Your task to perform on an android device: see sites visited before in the chrome app Image 0: 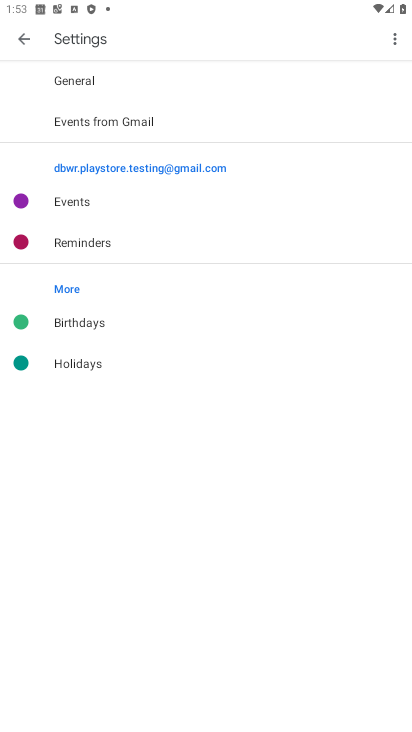
Step 0: press home button
Your task to perform on an android device: see sites visited before in the chrome app Image 1: 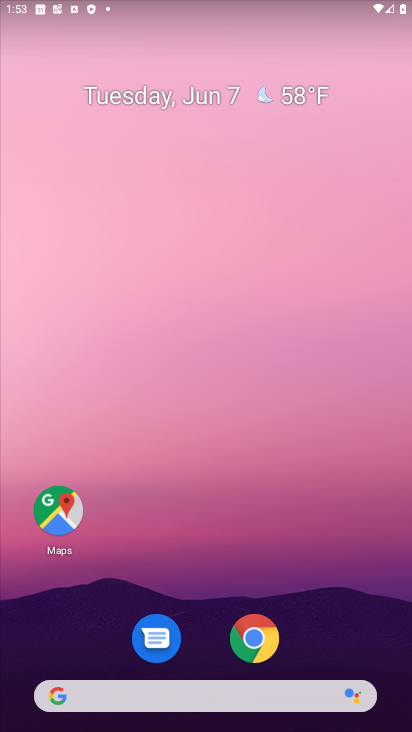
Step 1: drag from (212, 627) to (293, 292)
Your task to perform on an android device: see sites visited before in the chrome app Image 2: 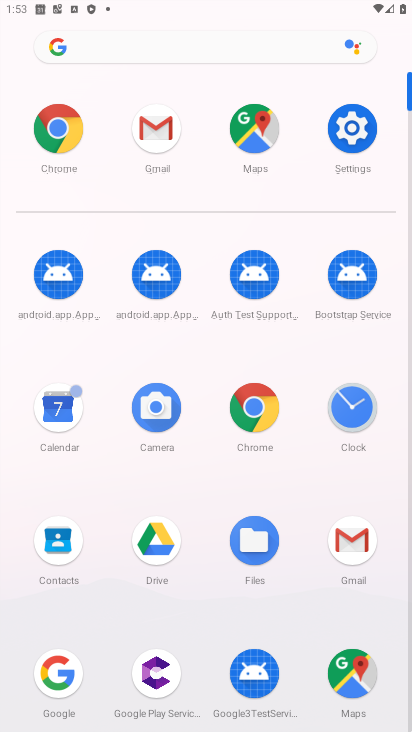
Step 2: click (61, 126)
Your task to perform on an android device: see sites visited before in the chrome app Image 3: 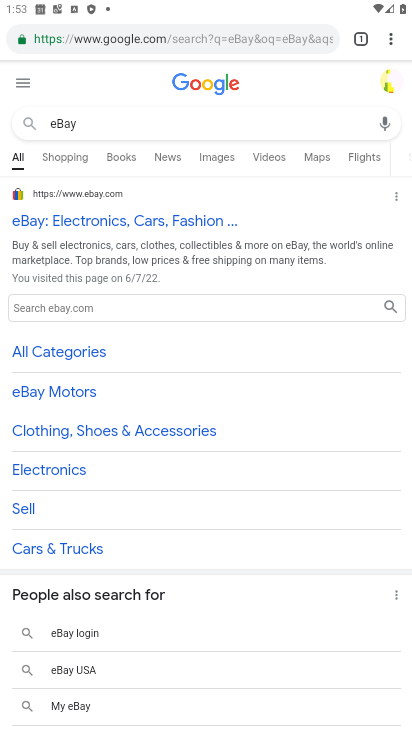
Step 3: click (391, 45)
Your task to perform on an android device: see sites visited before in the chrome app Image 4: 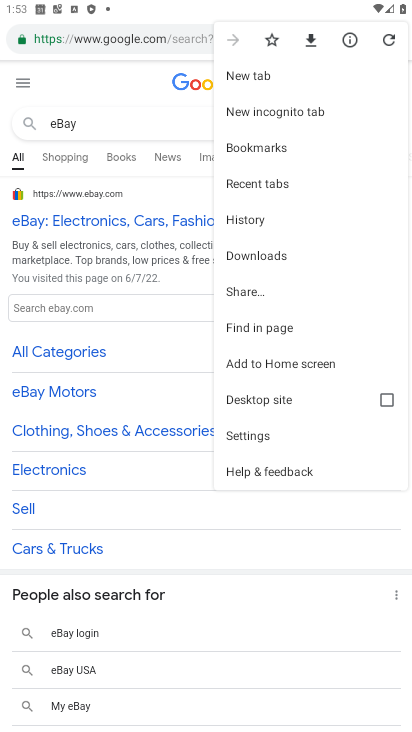
Step 4: click (256, 186)
Your task to perform on an android device: see sites visited before in the chrome app Image 5: 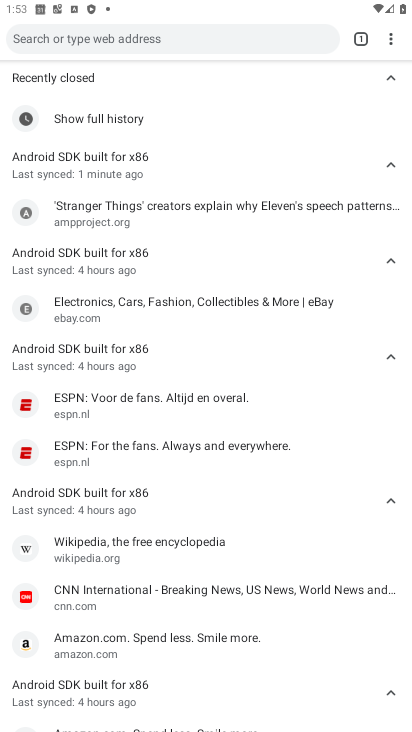
Step 5: task complete